Your task to perform on an android device: refresh tabs in the chrome app Image 0: 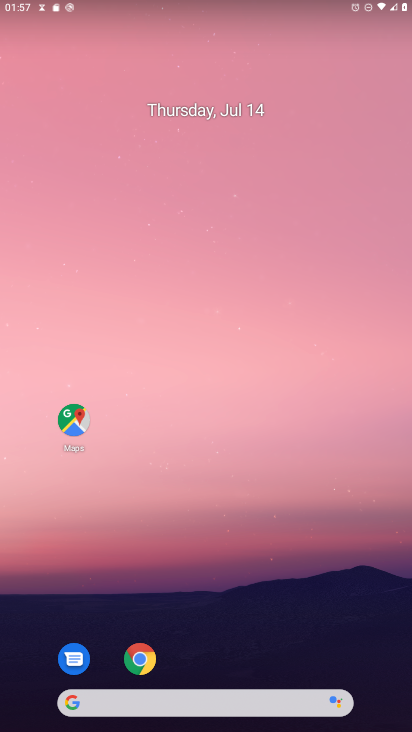
Step 0: click (136, 664)
Your task to perform on an android device: refresh tabs in the chrome app Image 1: 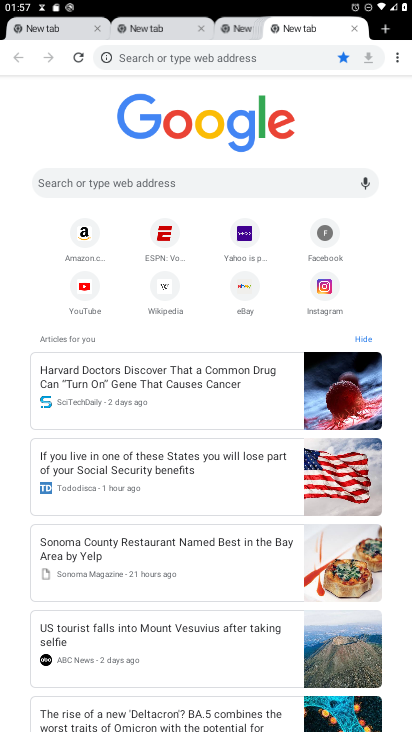
Step 1: click (393, 57)
Your task to perform on an android device: refresh tabs in the chrome app Image 2: 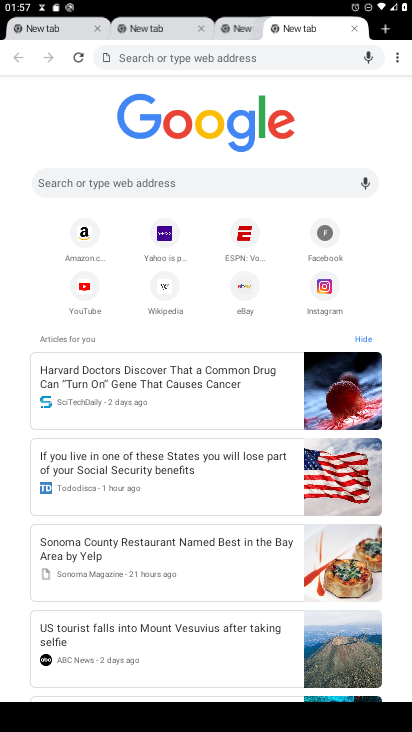
Step 2: click (74, 60)
Your task to perform on an android device: refresh tabs in the chrome app Image 3: 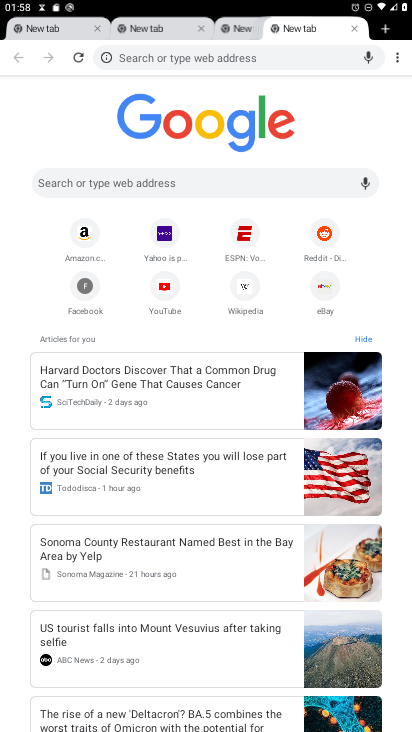
Step 3: task complete